Your task to perform on an android device: toggle notifications settings in the gmail app Image 0: 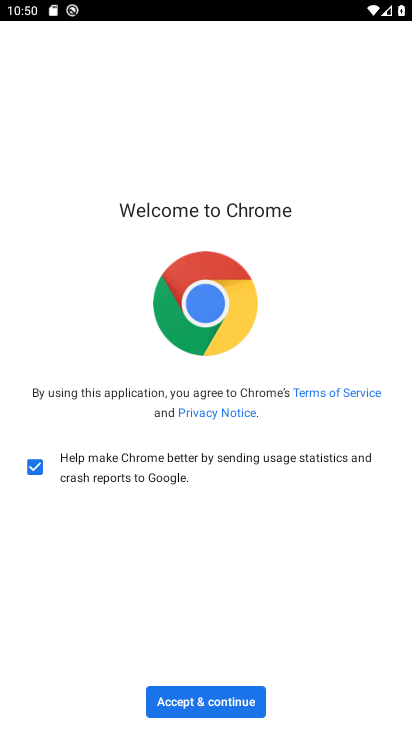
Step 0: press home button
Your task to perform on an android device: toggle notifications settings in the gmail app Image 1: 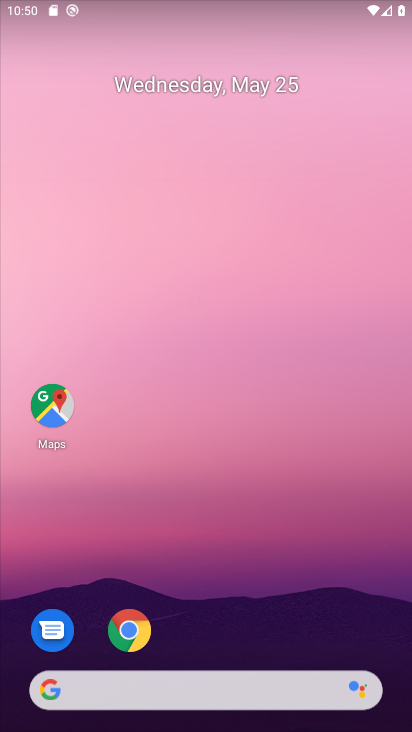
Step 1: drag from (174, 657) to (286, 209)
Your task to perform on an android device: toggle notifications settings in the gmail app Image 2: 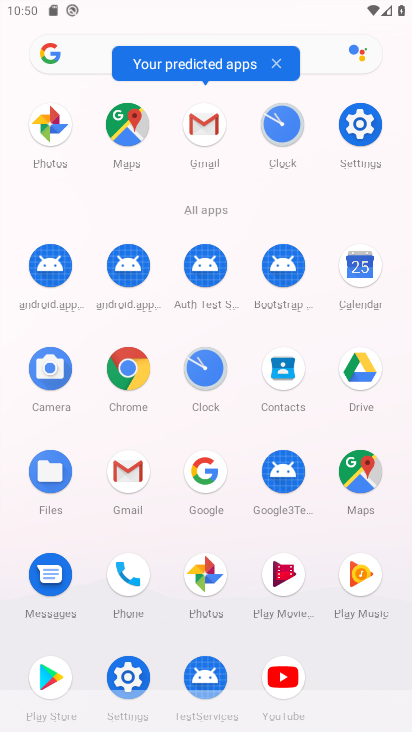
Step 2: click (129, 479)
Your task to perform on an android device: toggle notifications settings in the gmail app Image 3: 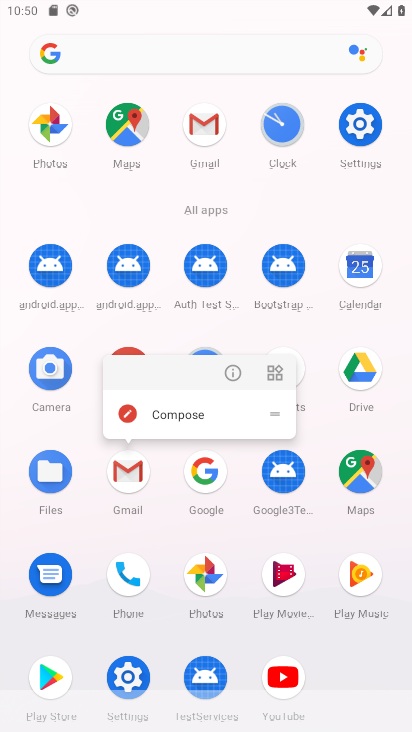
Step 3: click (129, 486)
Your task to perform on an android device: toggle notifications settings in the gmail app Image 4: 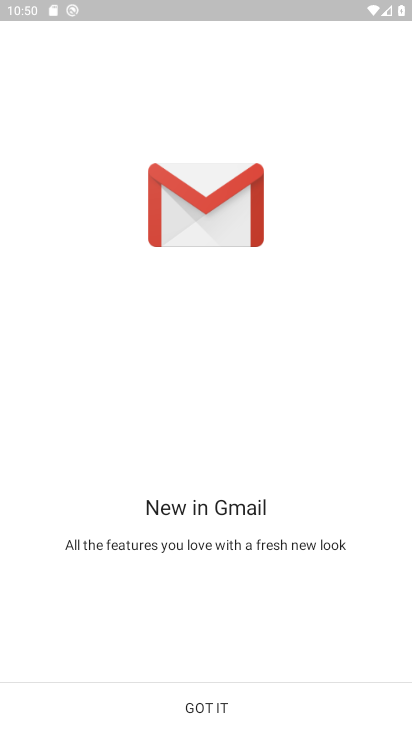
Step 4: click (271, 709)
Your task to perform on an android device: toggle notifications settings in the gmail app Image 5: 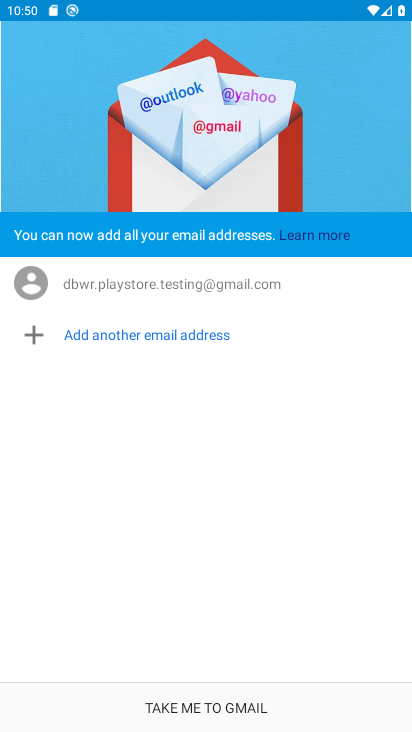
Step 5: click (251, 720)
Your task to perform on an android device: toggle notifications settings in the gmail app Image 6: 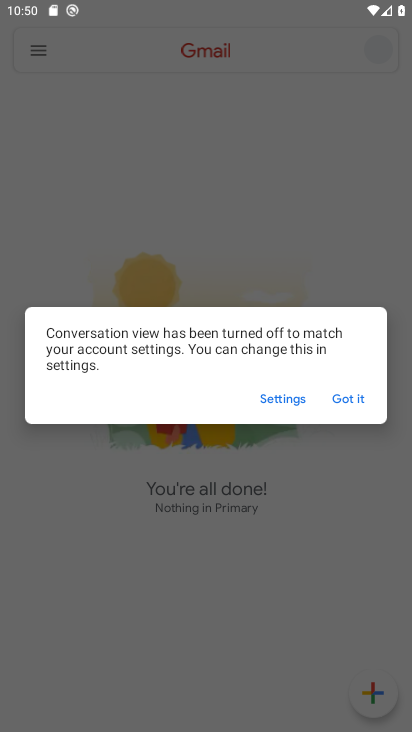
Step 6: click (348, 392)
Your task to perform on an android device: toggle notifications settings in the gmail app Image 7: 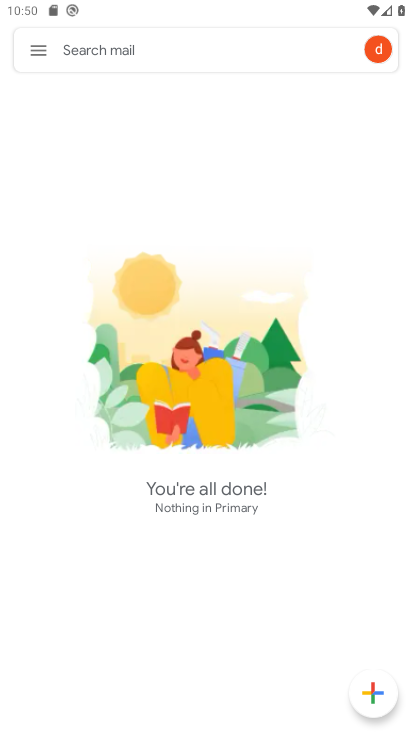
Step 7: click (38, 53)
Your task to perform on an android device: toggle notifications settings in the gmail app Image 8: 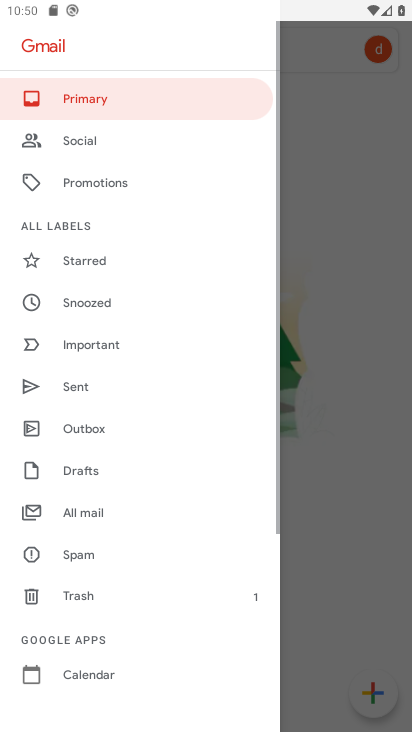
Step 8: drag from (115, 671) to (229, 291)
Your task to perform on an android device: toggle notifications settings in the gmail app Image 9: 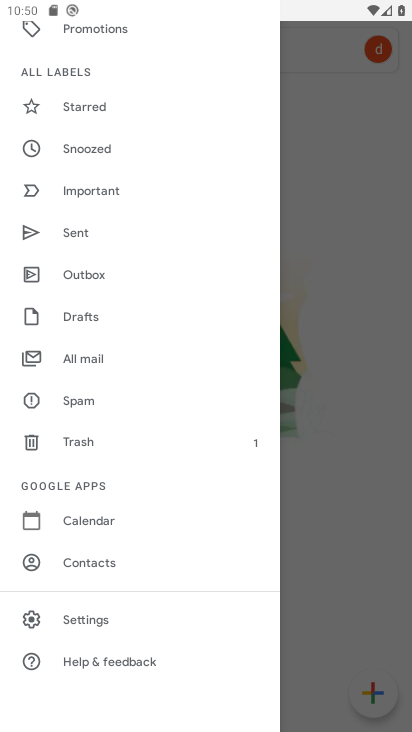
Step 9: click (115, 621)
Your task to perform on an android device: toggle notifications settings in the gmail app Image 10: 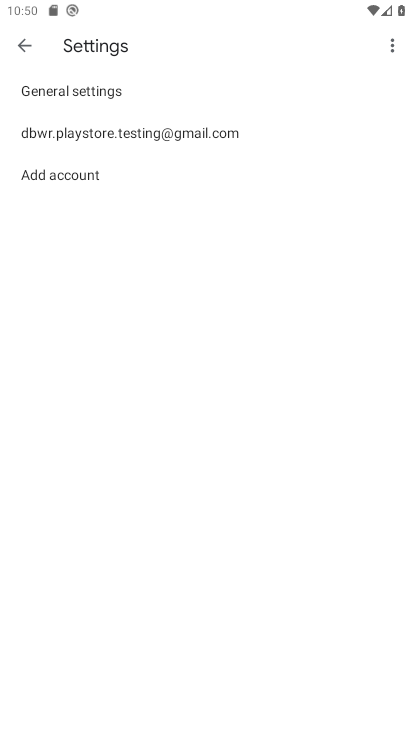
Step 10: click (239, 140)
Your task to perform on an android device: toggle notifications settings in the gmail app Image 11: 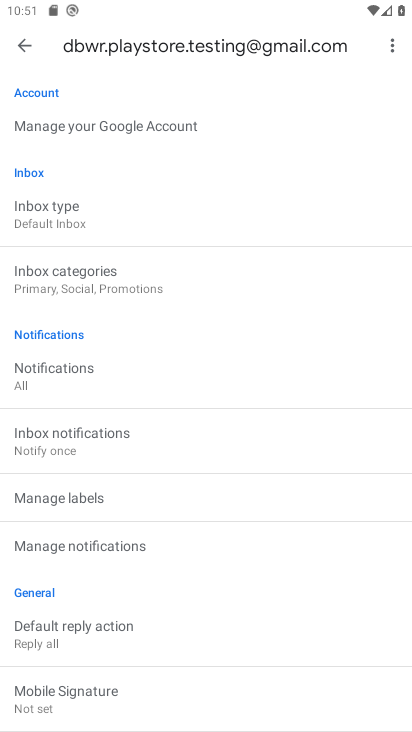
Step 11: click (168, 551)
Your task to perform on an android device: toggle notifications settings in the gmail app Image 12: 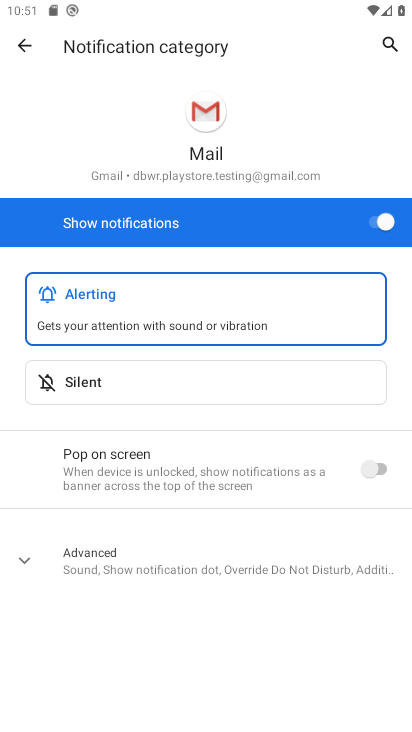
Step 12: click (364, 214)
Your task to perform on an android device: toggle notifications settings in the gmail app Image 13: 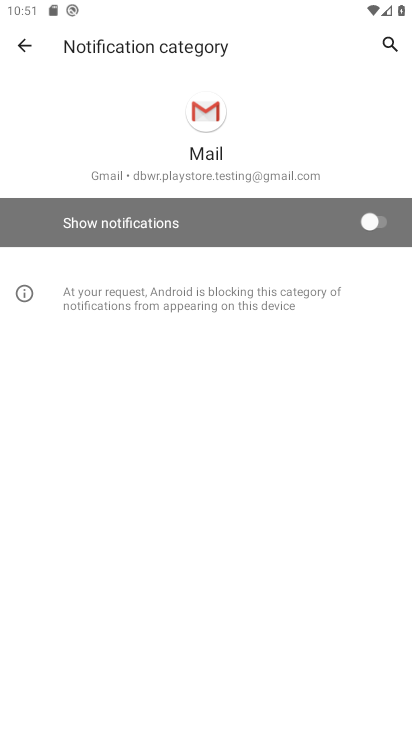
Step 13: task complete